Your task to perform on an android device: open sync settings in chrome Image 0: 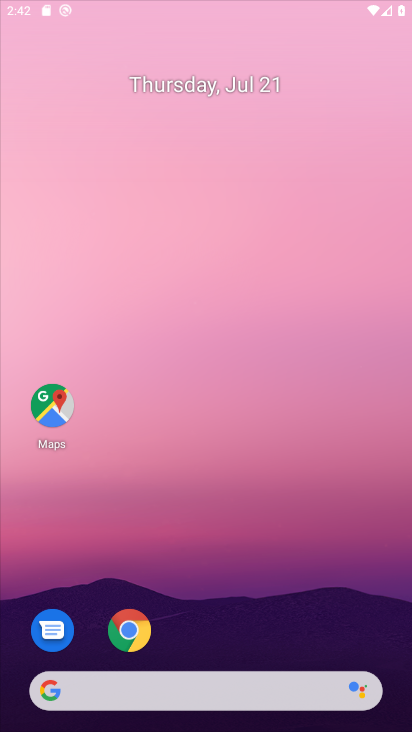
Step 0: drag from (232, 248) to (163, 76)
Your task to perform on an android device: open sync settings in chrome Image 1: 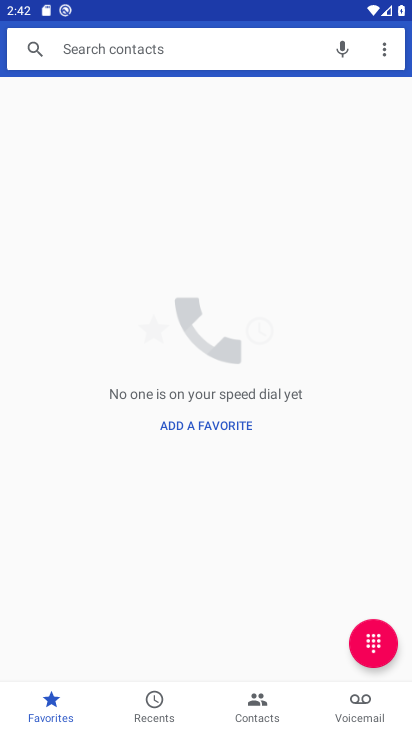
Step 1: press back button
Your task to perform on an android device: open sync settings in chrome Image 2: 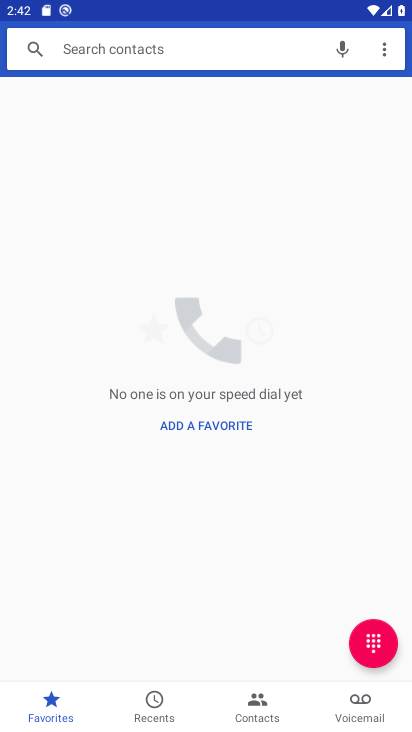
Step 2: press back button
Your task to perform on an android device: open sync settings in chrome Image 3: 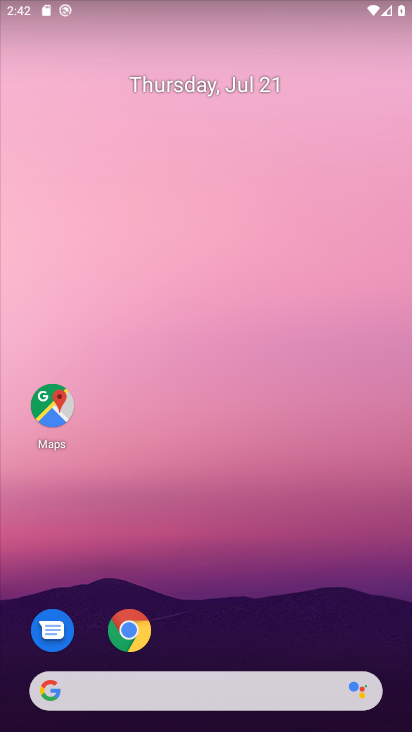
Step 3: drag from (199, 651) to (171, 125)
Your task to perform on an android device: open sync settings in chrome Image 4: 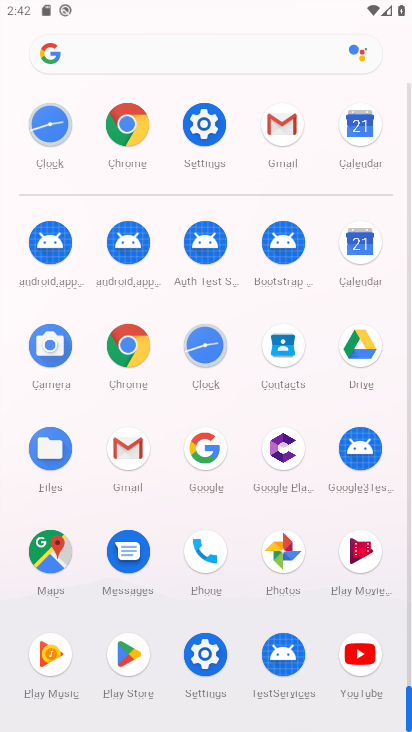
Step 4: click (129, 131)
Your task to perform on an android device: open sync settings in chrome Image 5: 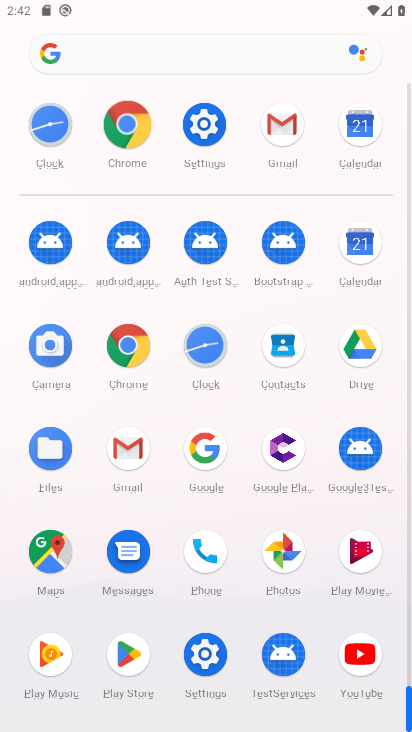
Step 5: click (130, 129)
Your task to perform on an android device: open sync settings in chrome Image 6: 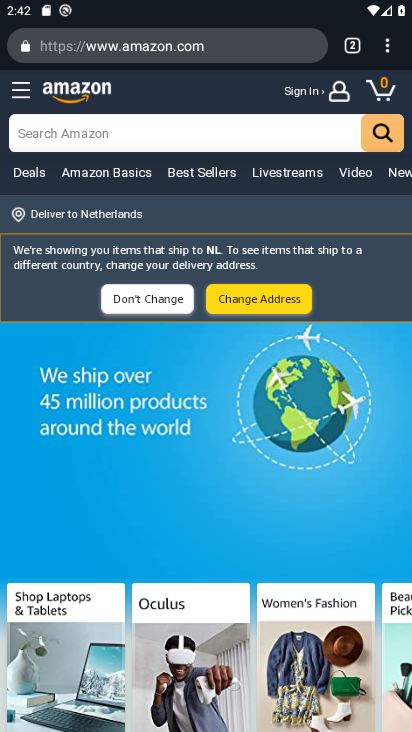
Step 6: drag from (388, 53) to (221, 496)
Your task to perform on an android device: open sync settings in chrome Image 7: 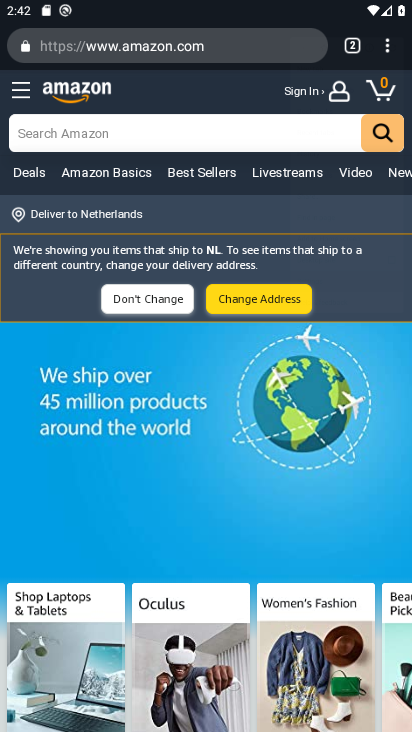
Step 7: click (219, 497)
Your task to perform on an android device: open sync settings in chrome Image 8: 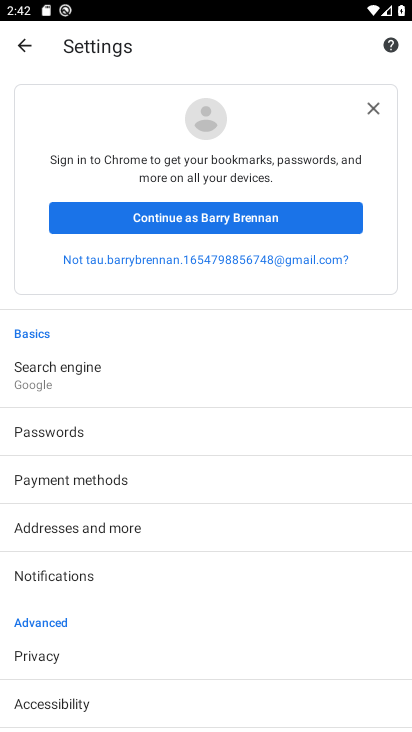
Step 8: drag from (85, 560) to (90, 297)
Your task to perform on an android device: open sync settings in chrome Image 9: 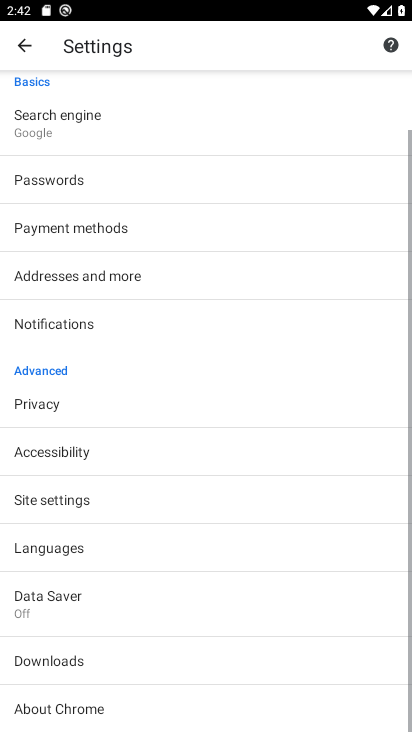
Step 9: drag from (103, 518) to (105, 342)
Your task to perform on an android device: open sync settings in chrome Image 10: 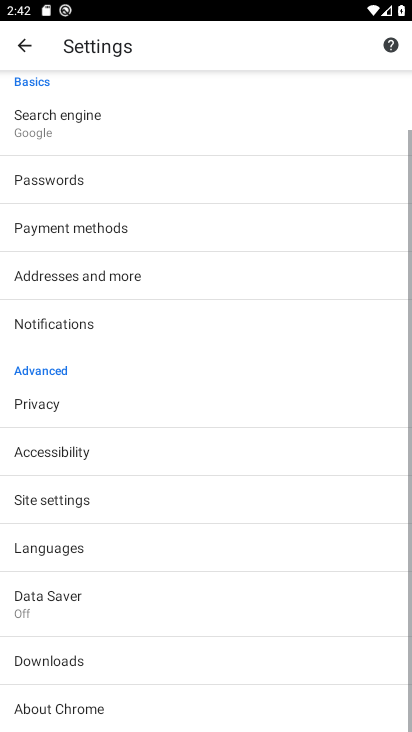
Step 10: drag from (116, 497) to (96, 106)
Your task to perform on an android device: open sync settings in chrome Image 11: 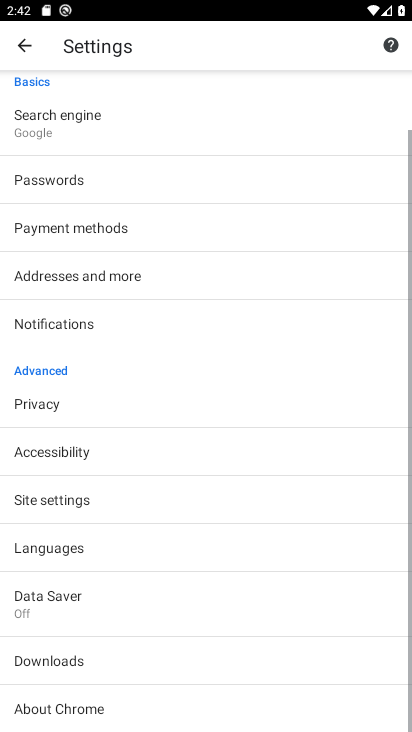
Step 11: click (56, 497)
Your task to perform on an android device: open sync settings in chrome Image 12: 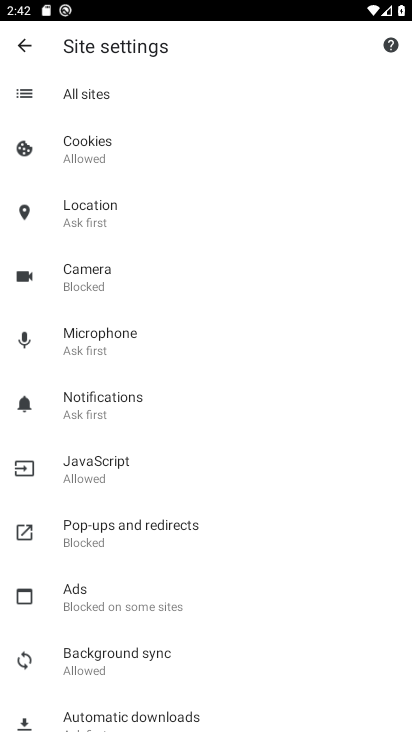
Step 12: click (87, 645)
Your task to perform on an android device: open sync settings in chrome Image 13: 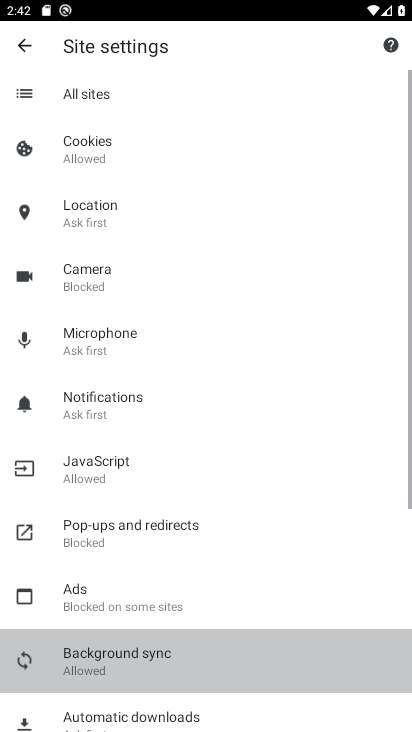
Step 13: click (86, 645)
Your task to perform on an android device: open sync settings in chrome Image 14: 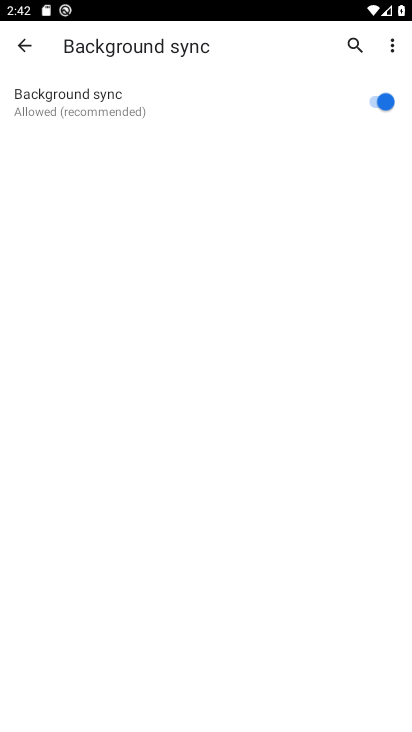
Step 14: task complete